Your task to perform on an android device: turn off notifications settings in the gmail app Image 0: 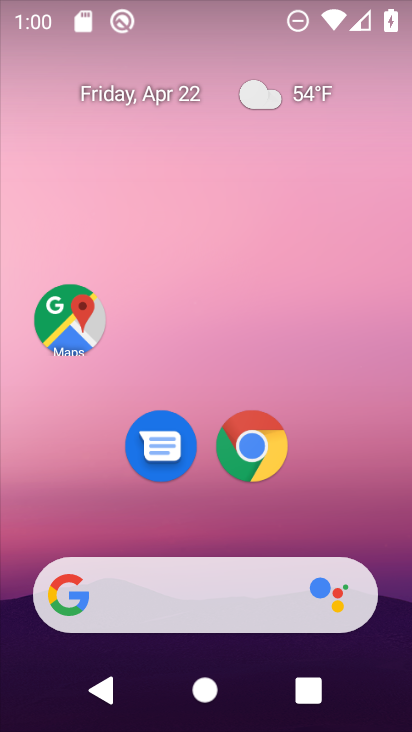
Step 0: drag from (354, 507) to (306, 193)
Your task to perform on an android device: turn off notifications settings in the gmail app Image 1: 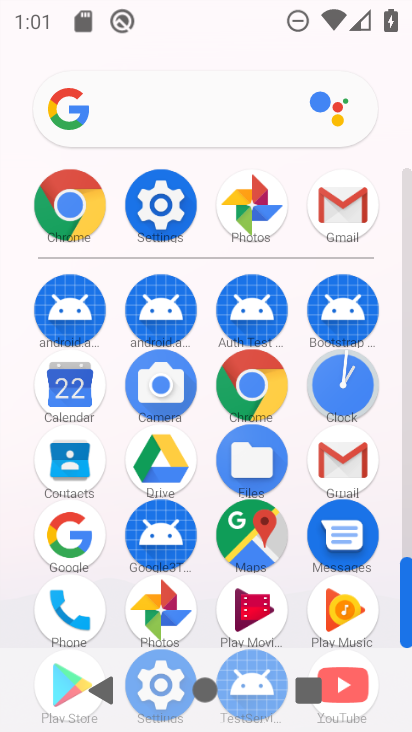
Step 1: click (361, 213)
Your task to perform on an android device: turn off notifications settings in the gmail app Image 2: 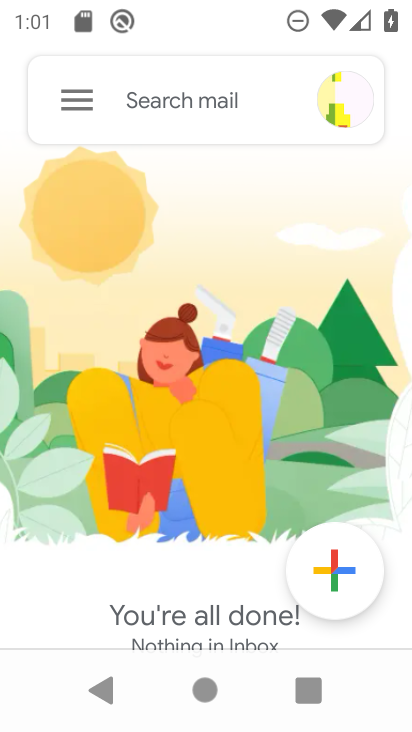
Step 2: click (74, 104)
Your task to perform on an android device: turn off notifications settings in the gmail app Image 3: 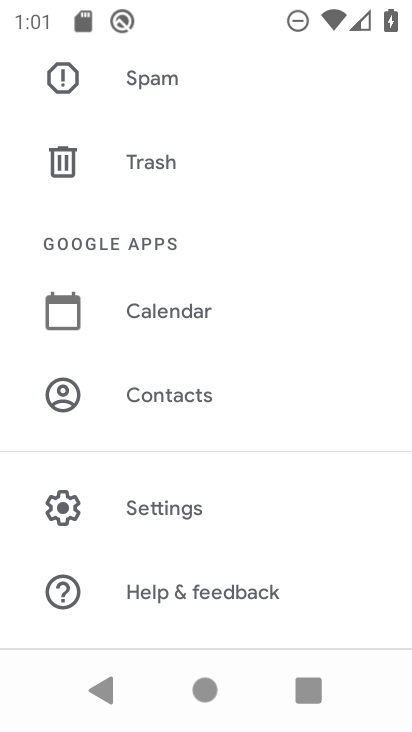
Step 3: click (248, 518)
Your task to perform on an android device: turn off notifications settings in the gmail app Image 4: 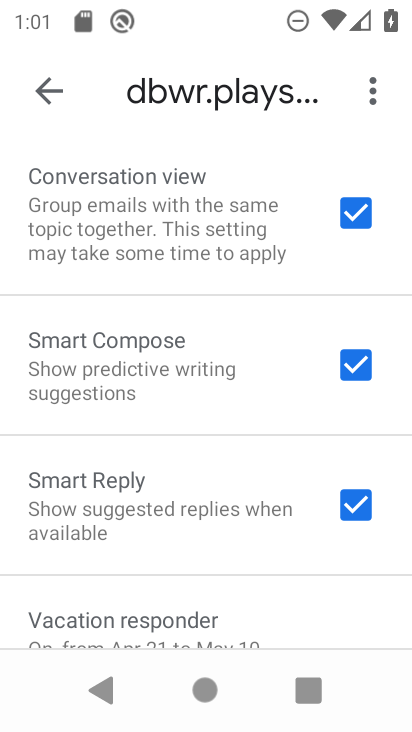
Step 4: drag from (237, 222) to (269, 699)
Your task to perform on an android device: turn off notifications settings in the gmail app Image 5: 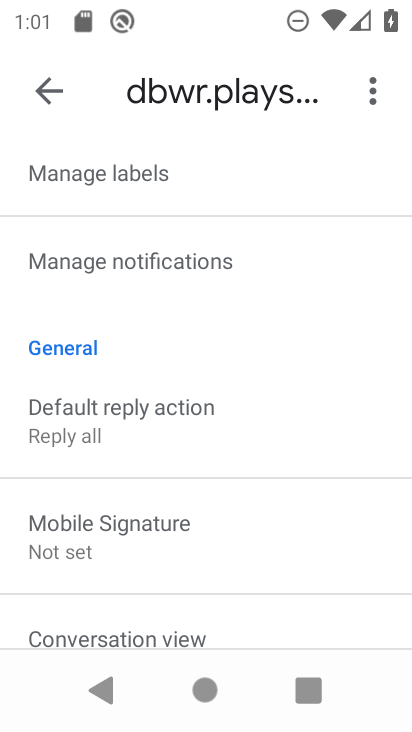
Step 5: click (229, 264)
Your task to perform on an android device: turn off notifications settings in the gmail app Image 6: 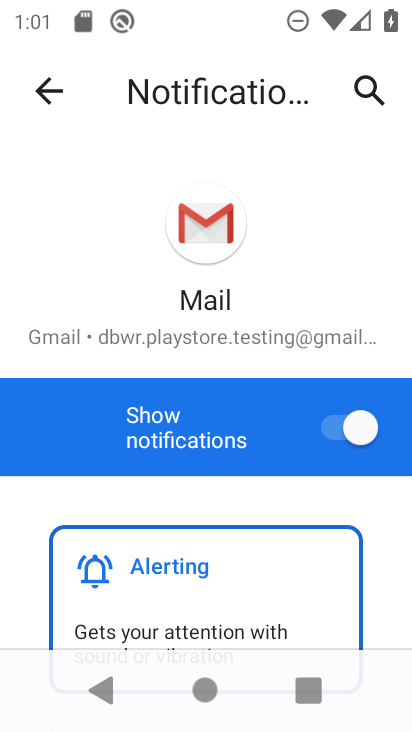
Step 6: drag from (391, 619) to (309, 256)
Your task to perform on an android device: turn off notifications settings in the gmail app Image 7: 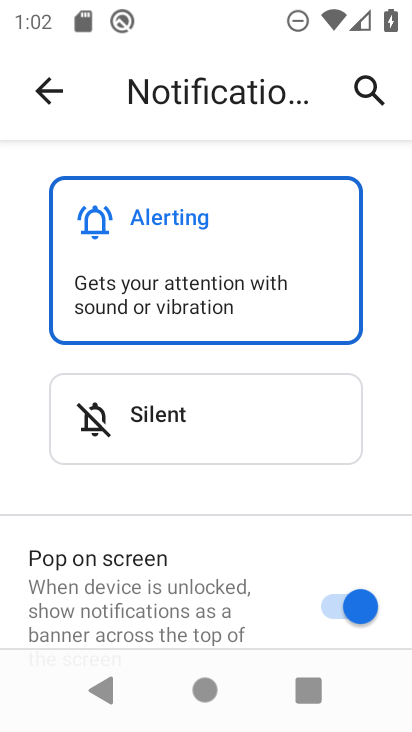
Step 7: click (338, 599)
Your task to perform on an android device: turn off notifications settings in the gmail app Image 8: 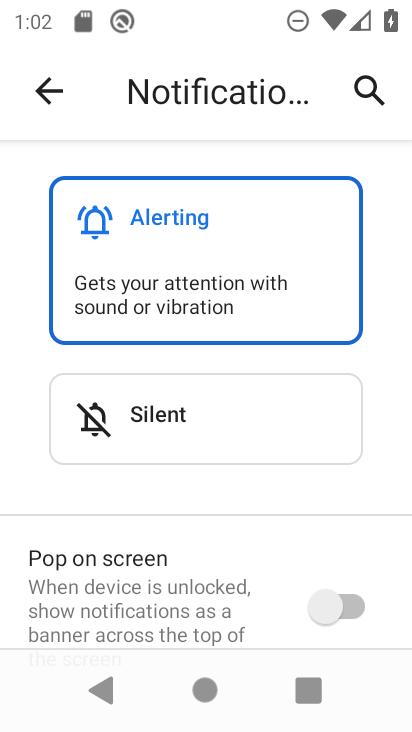
Step 8: task complete